Your task to perform on an android device: turn notification dots on Image 0: 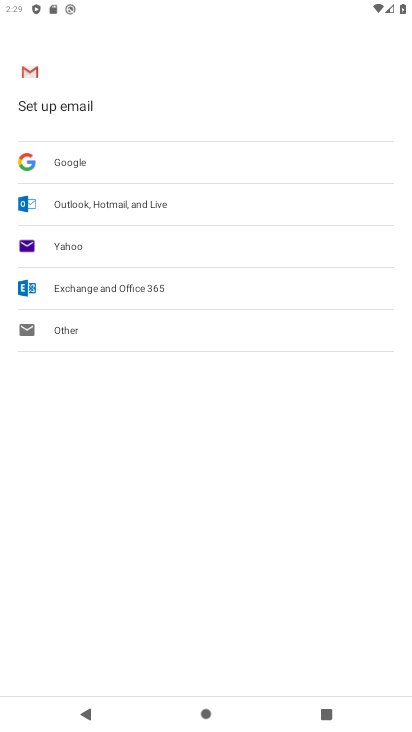
Step 0: press home button
Your task to perform on an android device: turn notification dots on Image 1: 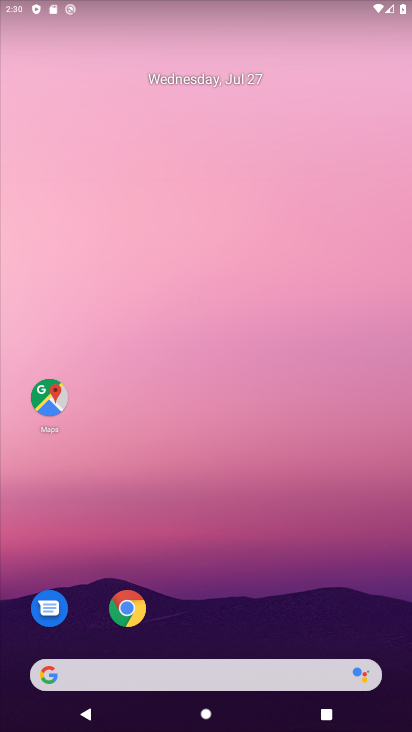
Step 1: task complete